Your task to perform on an android device: Open wifi settings Image 0: 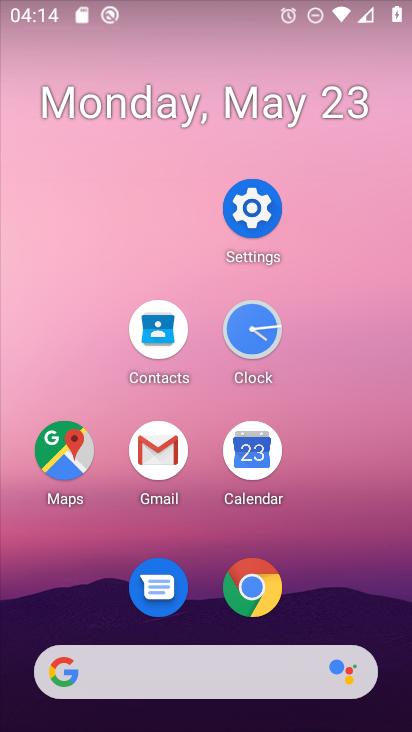
Step 0: click (270, 224)
Your task to perform on an android device: Open wifi settings Image 1: 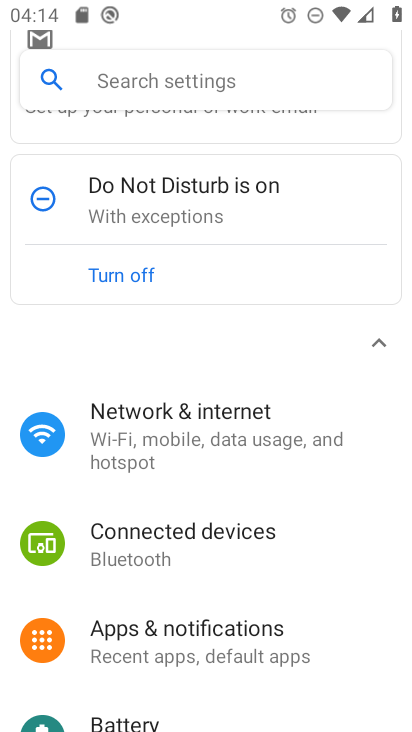
Step 1: click (175, 399)
Your task to perform on an android device: Open wifi settings Image 2: 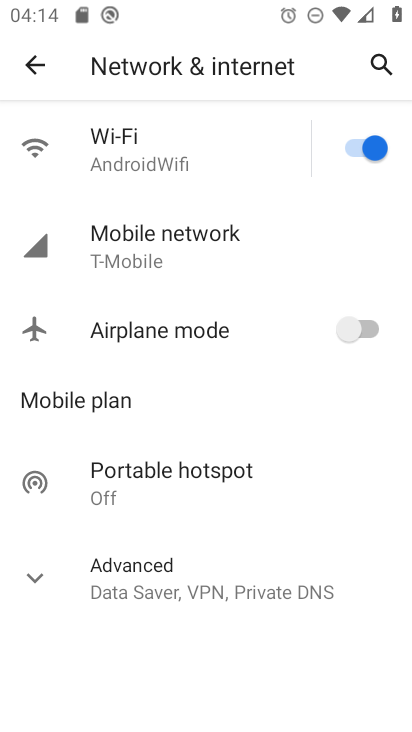
Step 2: click (296, 158)
Your task to perform on an android device: Open wifi settings Image 3: 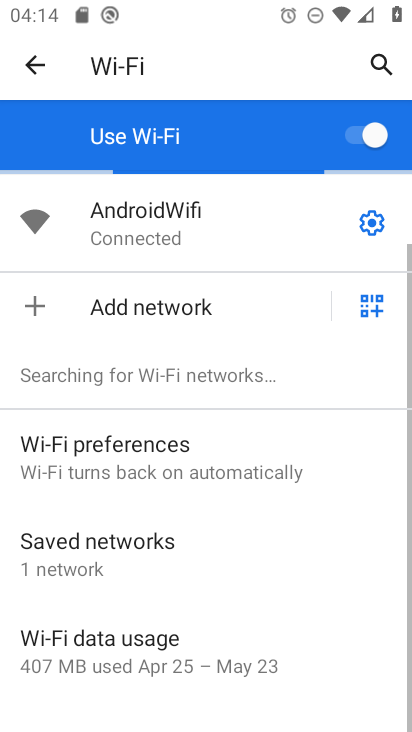
Step 3: task complete